Your task to perform on an android device: Search for sushi restaurants on Maps Image 0: 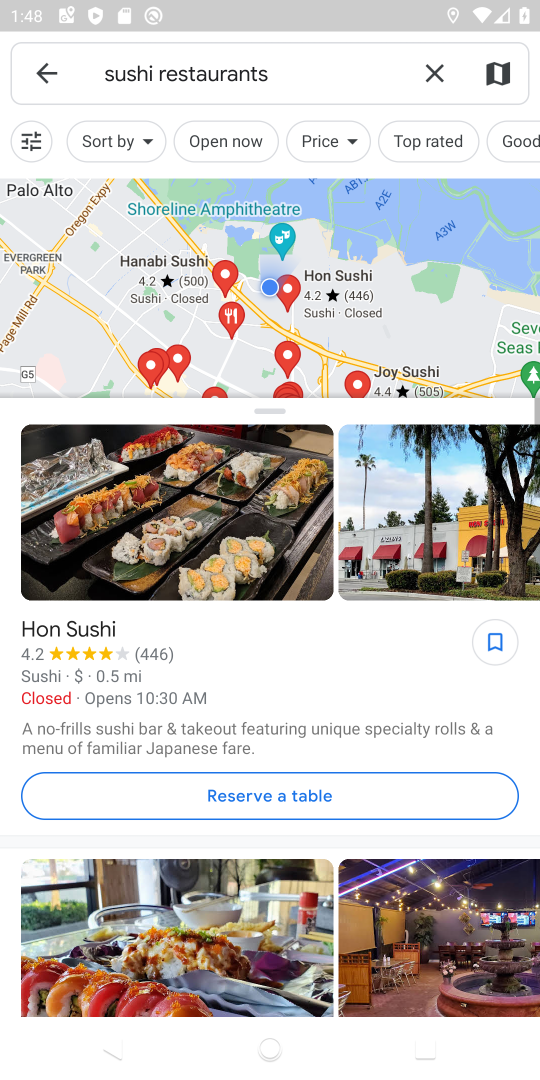
Step 0: press home button
Your task to perform on an android device: Search for sushi restaurants on Maps Image 1: 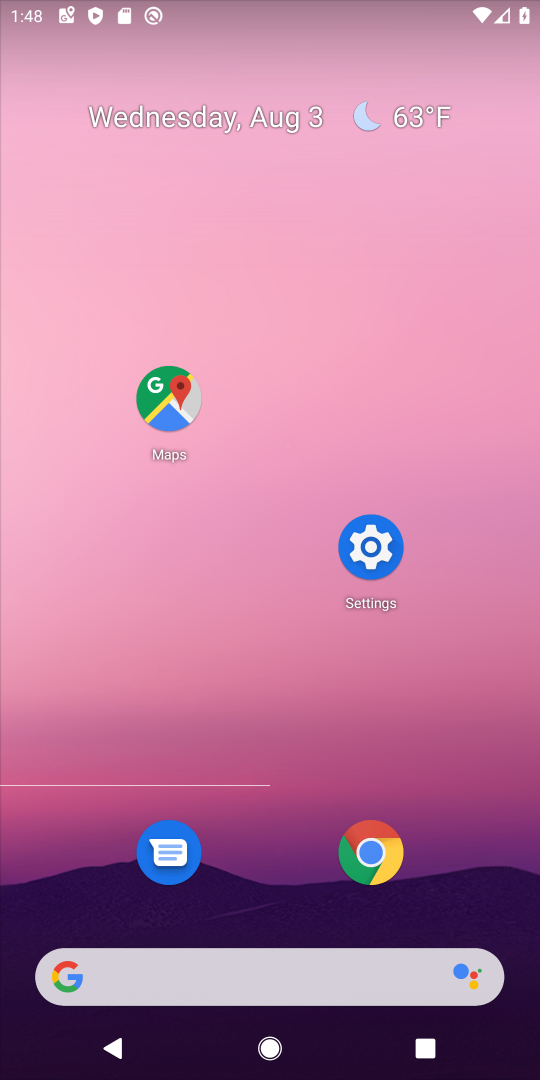
Step 1: click (167, 404)
Your task to perform on an android device: Search for sushi restaurants on Maps Image 2: 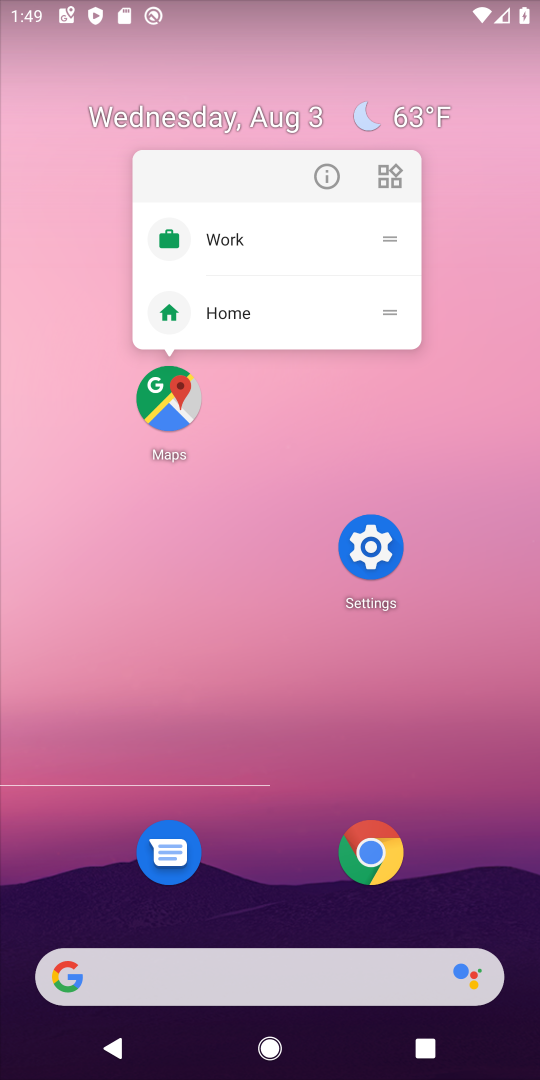
Step 2: click (167, 404)
Your task to perform on an android device: Search for sushi restaurants on Maps Image 3: 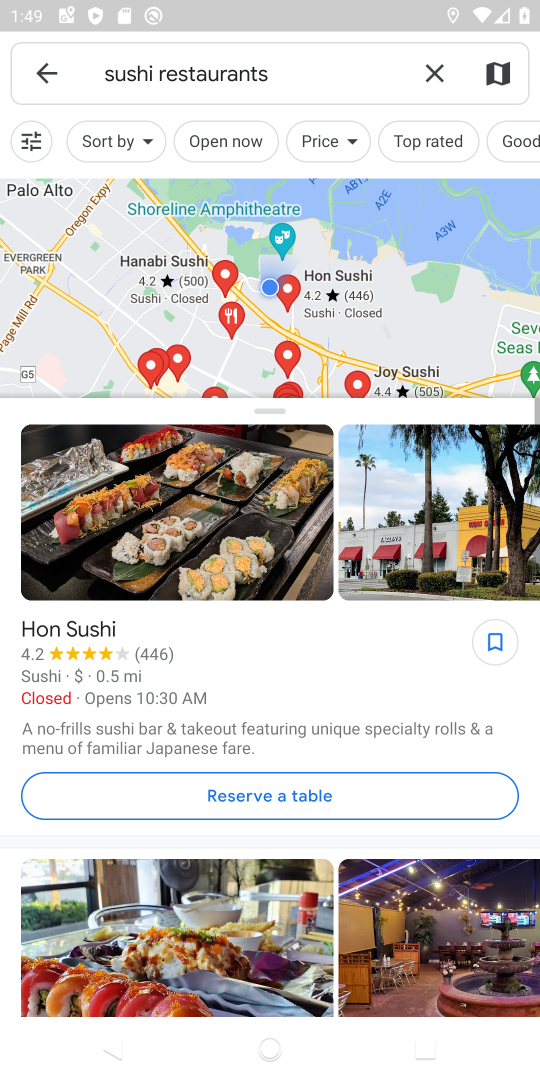
Step 3: click (433, 74)
Your task to perform on an android device: Search for sushi restaurants on Maps Image 4: 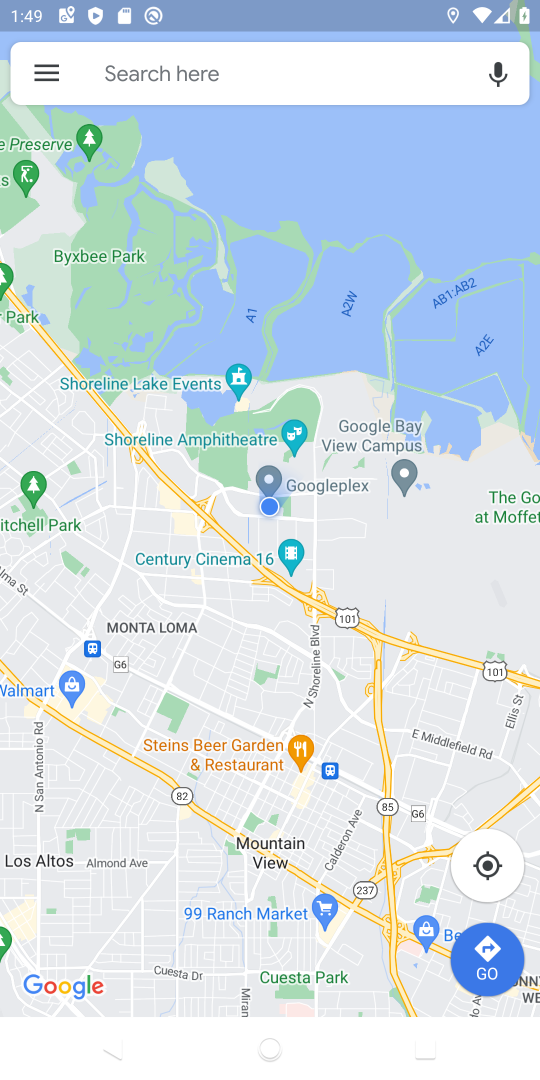
Step 4: type " sushi restaurants"
Your task to perform on an android device: Search for sushi restaurants on Maps Image 5: 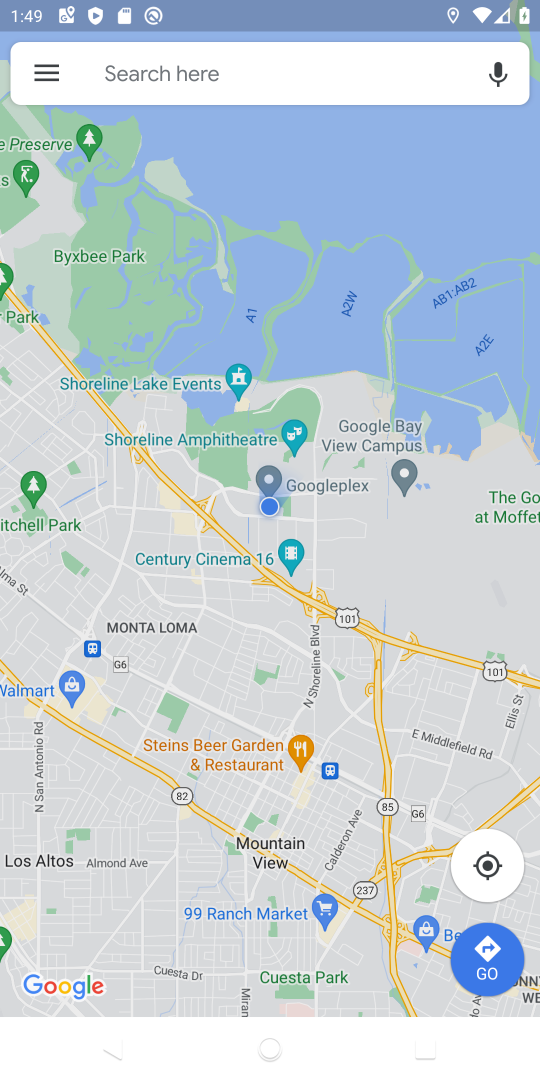
Step 5: click (151, 65)
Your task to perform on an android device: Search for sushi restaurants on Maps Image 6: 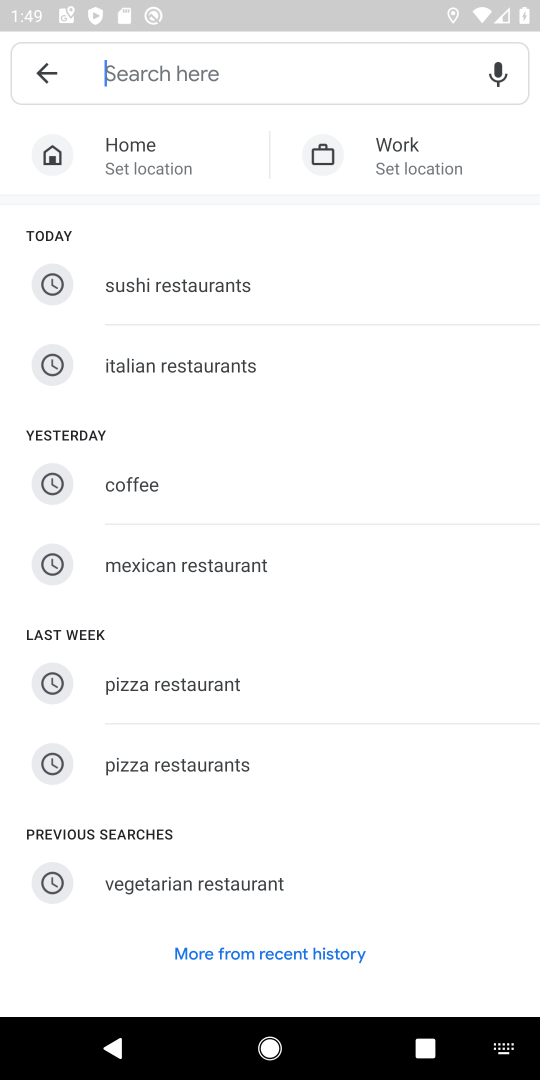
Step 6: type "sushi restaurants"
Your task to perform on an android device: Search for sushi restaurants on Maps Image 7: 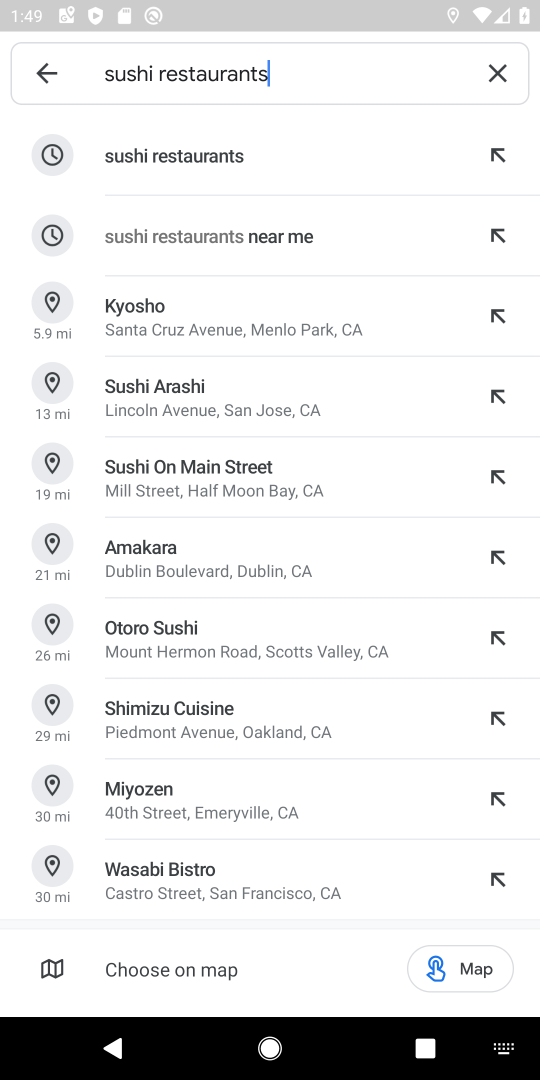
Step 7: click (171, 163)
Your task to perform on an android device: Search for sushi restaurants on Maps Image 8: 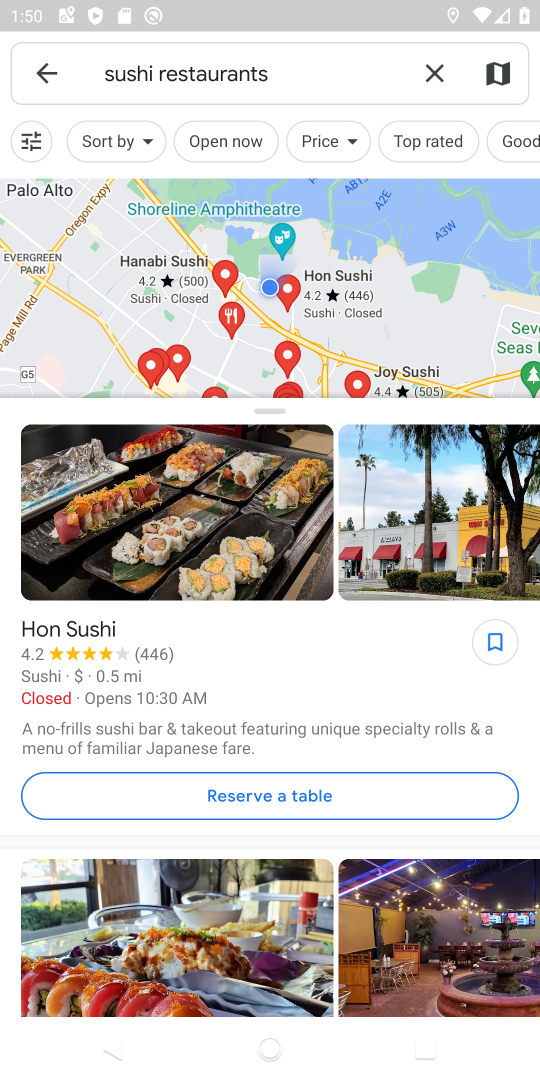
Step 8: task complete